Your task to perform on an android device: turn off sleep mode Image 0: 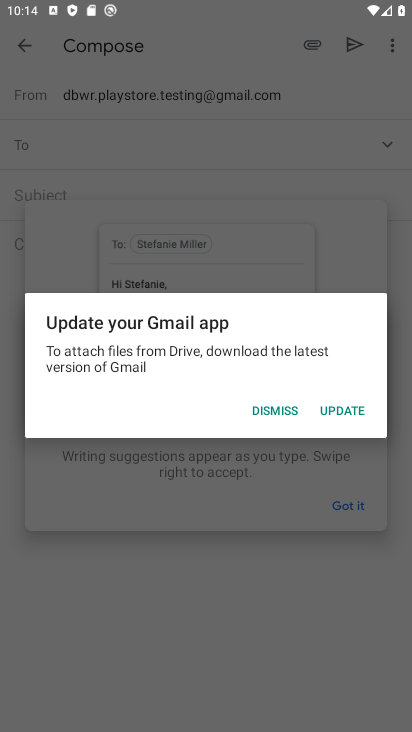
Step 0: press home button
Your task to perform on an android device: turn off sleep mode Image 1: 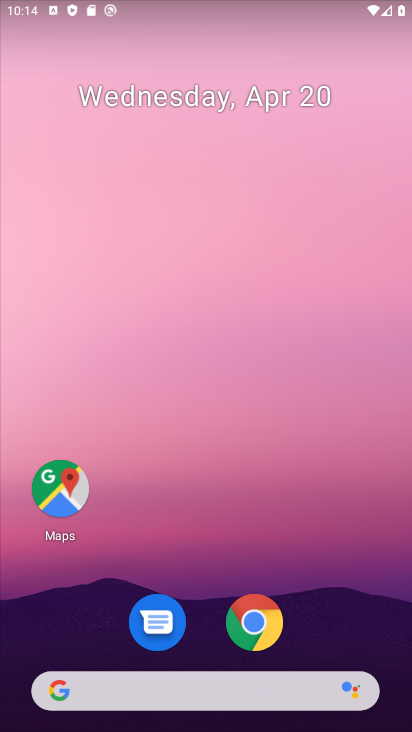
Step 1: drag from (355, 557) to (340, 11)
Your task to perform on an android device: turn off sleep mode Image 2: 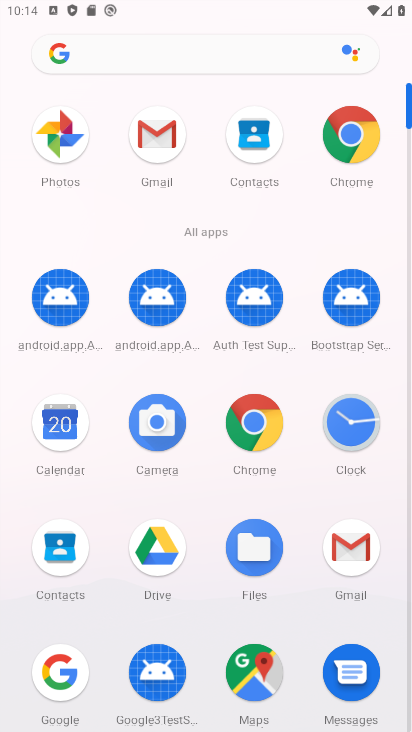
Step 2: drag from (386, 578) to (355, 180)
Your task to perform on an android device: turn off sleep mode Image 3: 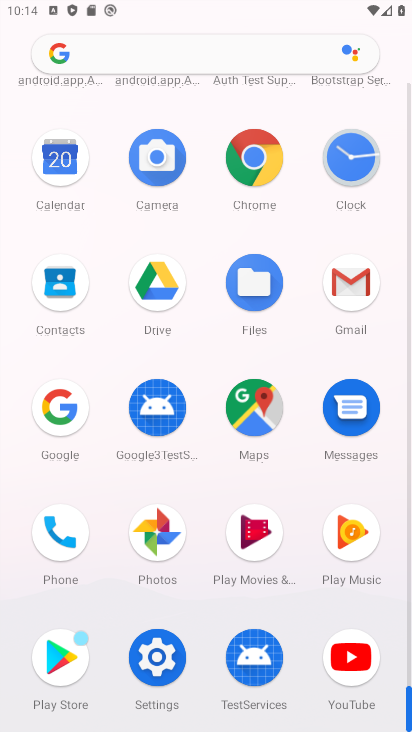
Step 3: click (159, 663)
Your task to perform on an android device: turn off sleep mode Image 4: 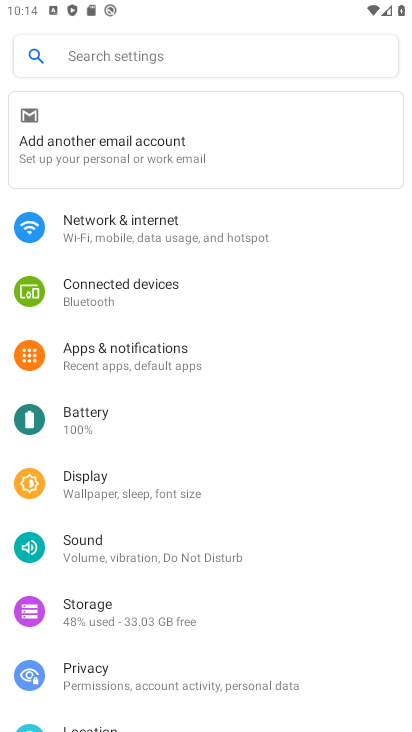
Step 4: drag from (166, 531) to (157, 244)
Your task to perform on an android device: turn off sleep mode Image 5: 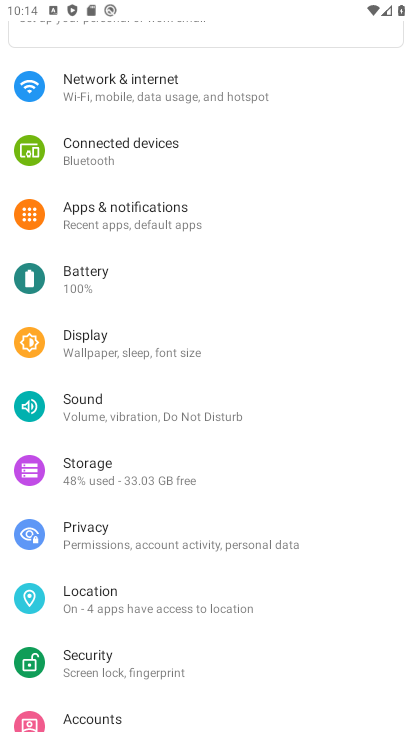
Step 5: click (67, 342)
Your task to perform on an android device: turn off sleep mode Image 6: 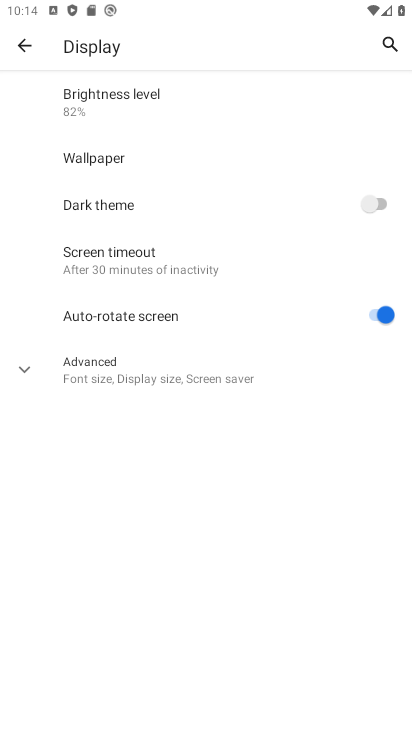
Step 6: click (99, 262)
Your task to perform on an android device: turn off sleep mode Image 7: 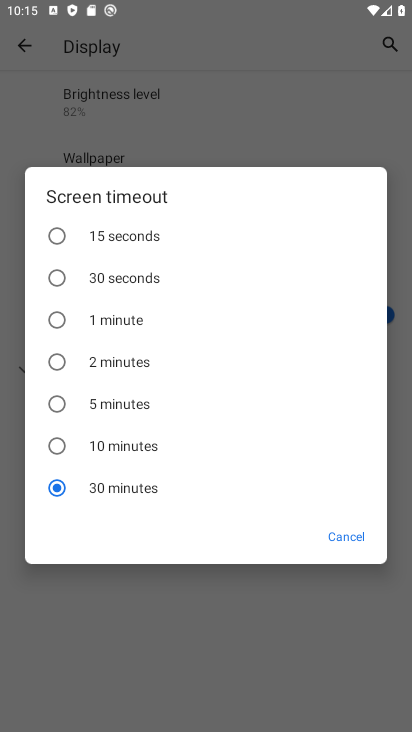
Step 7: task complete